Your task to perform on an android device: turn smart compose on in the gmail app Image 0: 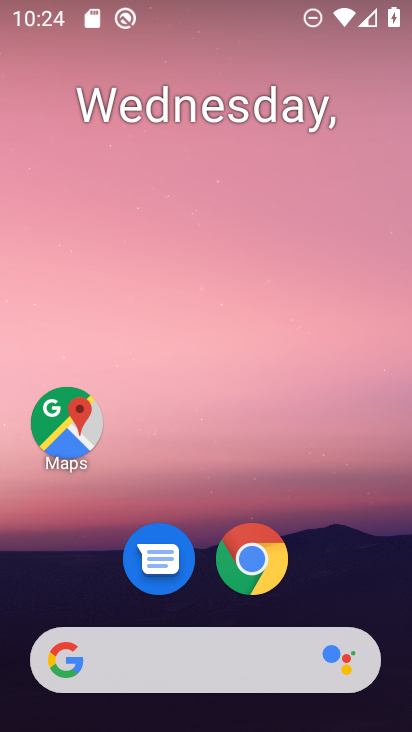
Step 0: drag from (371, 583) to (376, 213)
Your task to perform on an android device: turn smart compose on in the gmail app Image 1: 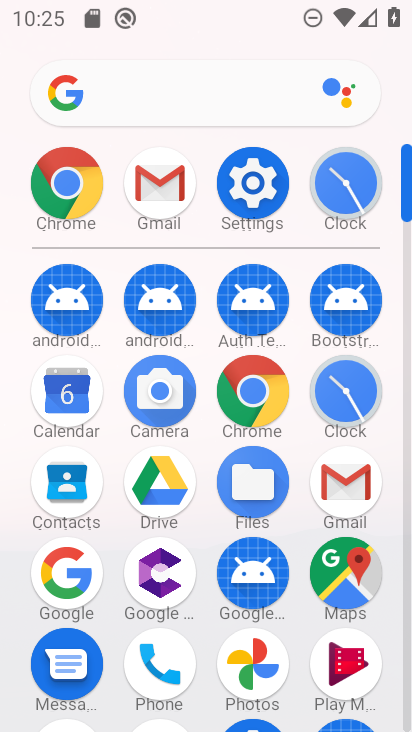
Step 1: click (351, 481)
Your task to perform on an android device: turn smart compose on in the gmail app Image 2: 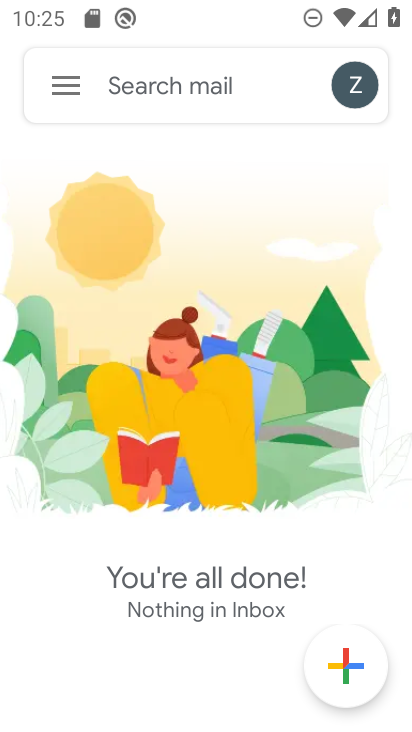
Step 2: click (66, 93)
Your task to perform on an android device: turn smart compose on in the gmail app Image 3: 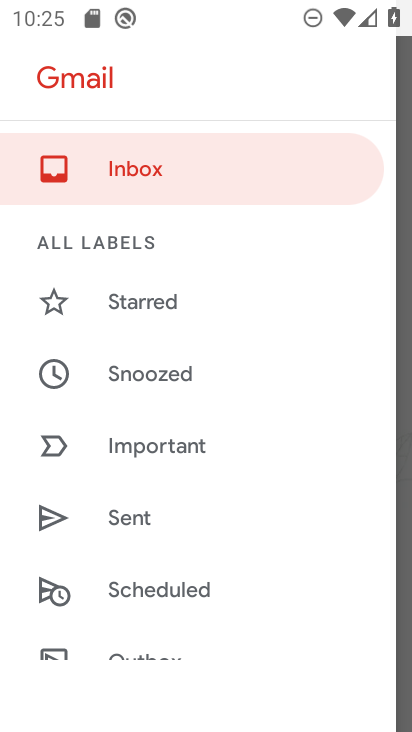
Step 3: drag from (285, 431) to (305, 242)
Your task to perform on an android device: turn smart compose on in the gmail app Image 4: 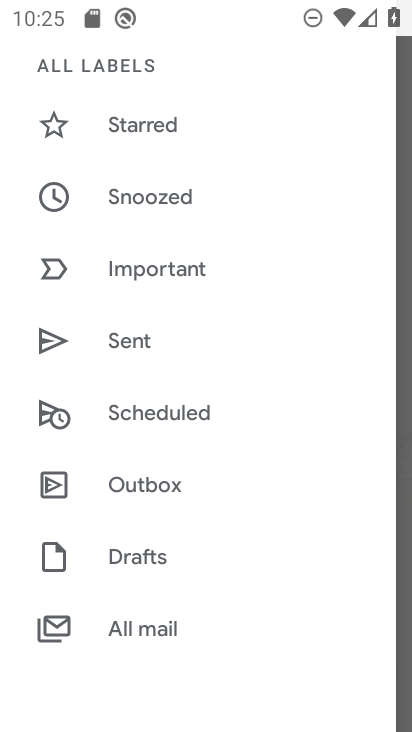
Step 4: drag from (325, 434) to (334, 273)
Your task to perform on an android device: turn smart compose on in the gmail app Image 5: 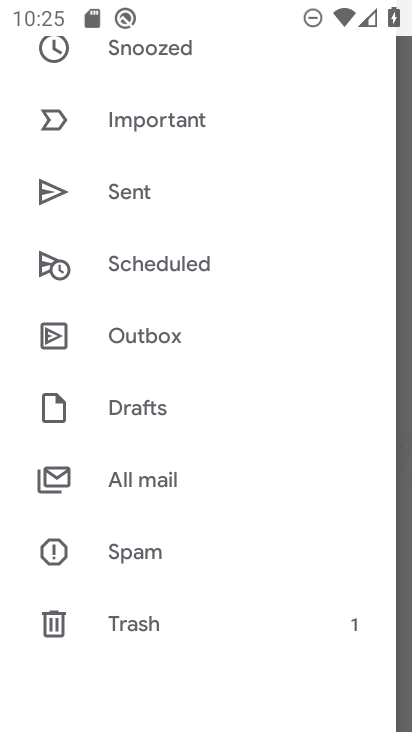
Step 5: drag from (312, 434) to (311, 303)
Your task to perform on an android device: turn smart compose on in the gmail app Image 6: 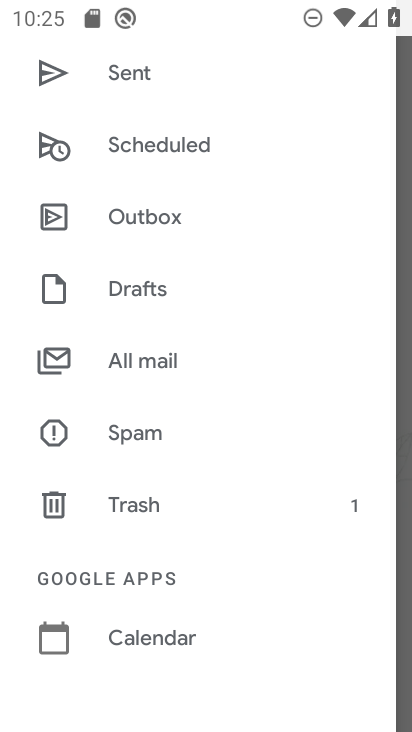
Step 6: drag from (292, 521) to (290, 220)
Your task to perform on an android device: turn smart compose on in the gmail app Image 7: 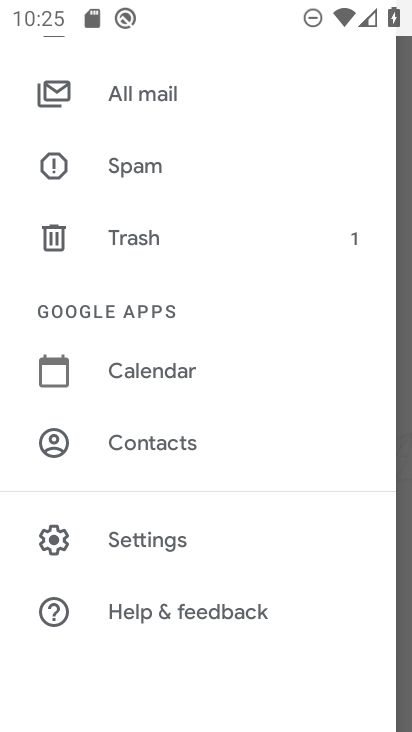
Step 7: click (182, 540)
Your task to perform on an android device: turn smart compose on in the gmail app Image 8: 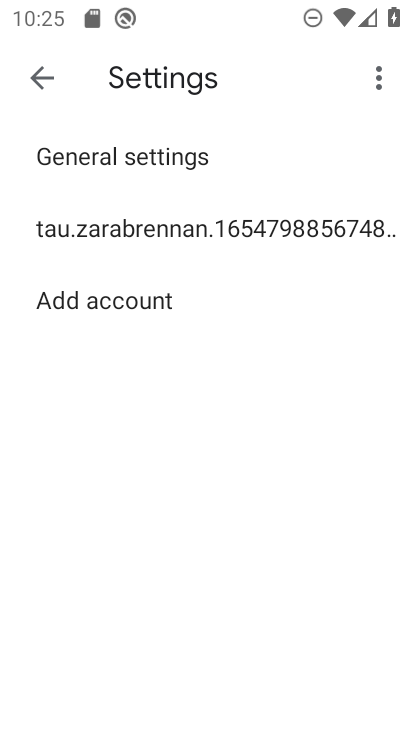
Step 8: click (305, 237)
Your task to perform on an android device: turn smart compose on in the gmail app Image 9: 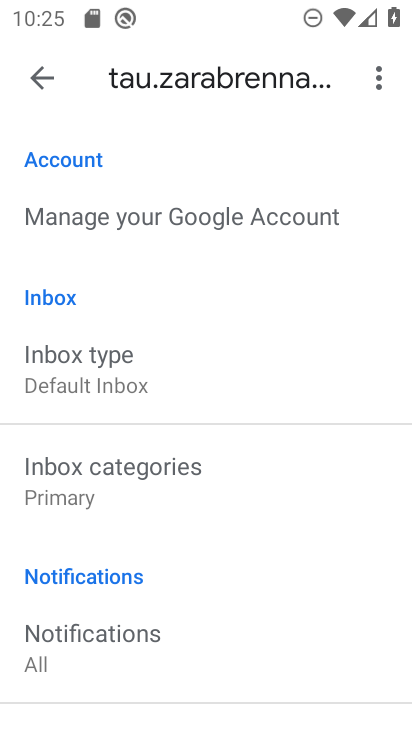
Step 9: task complete